Your task to perform on an android device: Search for Mexican restaurants on Maps Image 0: 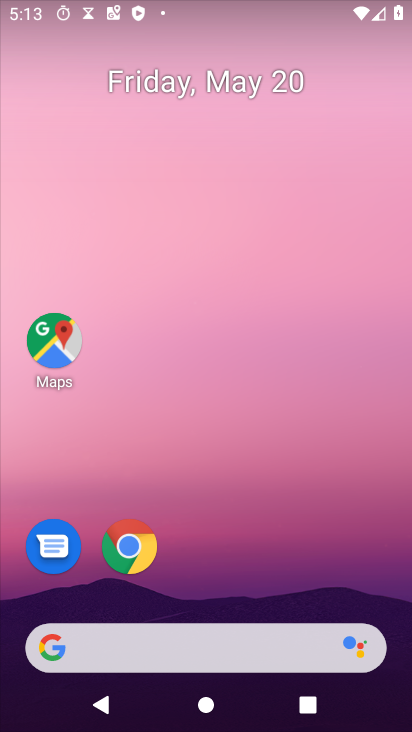
Step 0: click (50, 339)
Your task to perform on an android device: Search for Mexican restaurants on Maps Image 1: 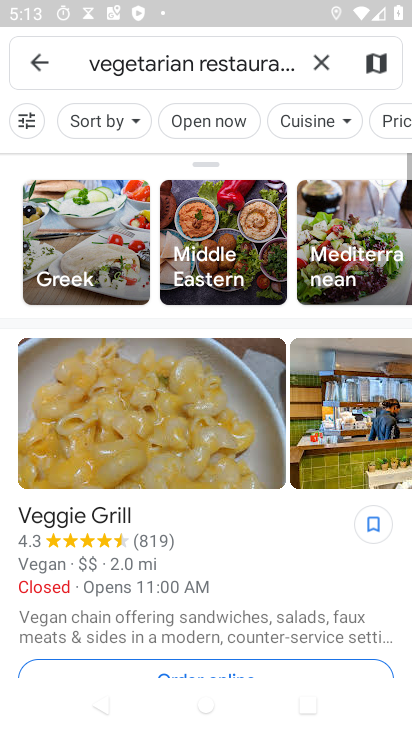
Step 1: click (316, 56)
Your task to perform on an android device: Search for Mexican restaurants on Maps Image 2: 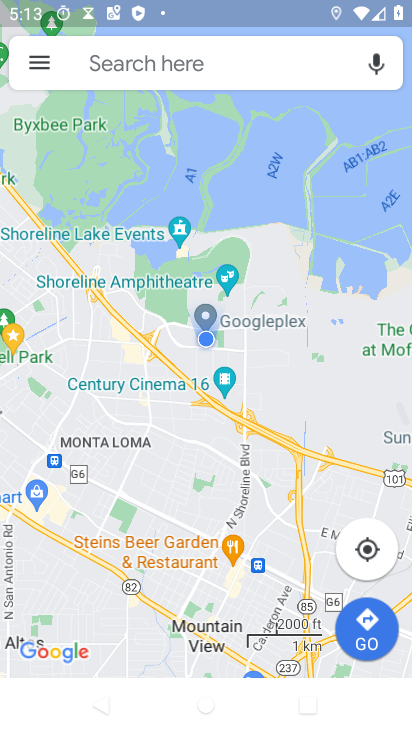
Step 2: click (281, 60)
Your task to perform on an android device: Search for Mexican restaurants on Maps Image 3: 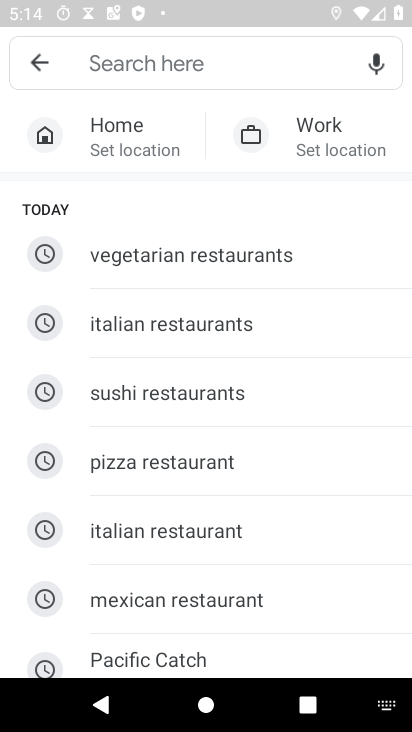
Step 3: type "Mexican restaurants"
Your task to perform on an android device: Search for Mexican restaurants on Maps Image 4: 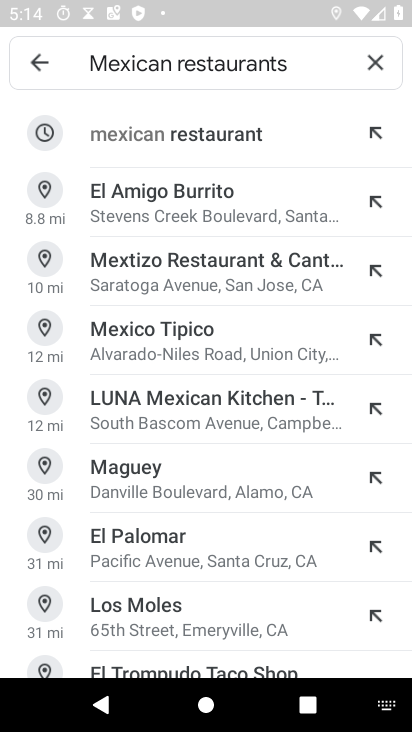
Step 4: click (217, 142)
Your task to perform on an android device: Search for Mexican restaurants on Maps Image 5: 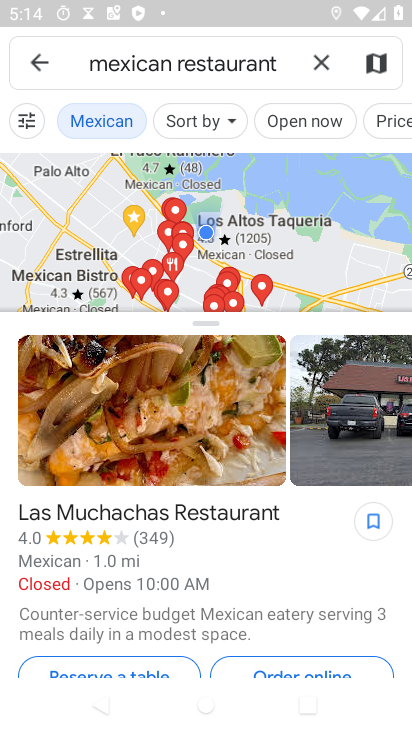
Step 5: task complete